Your task to perform on an android device: find snoozed emails in the gmail app Image 0: 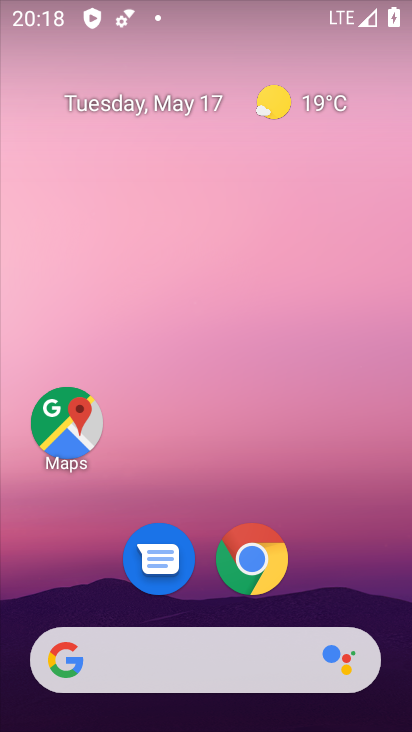
Step 0: drag from (210, 608) to (179, 192)
Your task to perform on an android device: find snoozed emails in the gmail app Image 1: 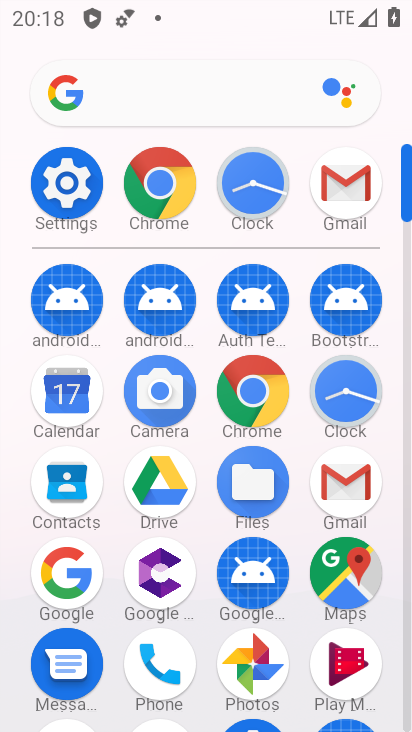
Step 1: click (344, 464)
Your task to perform on an android device: find snoozed emails in the gmail app Image 2: 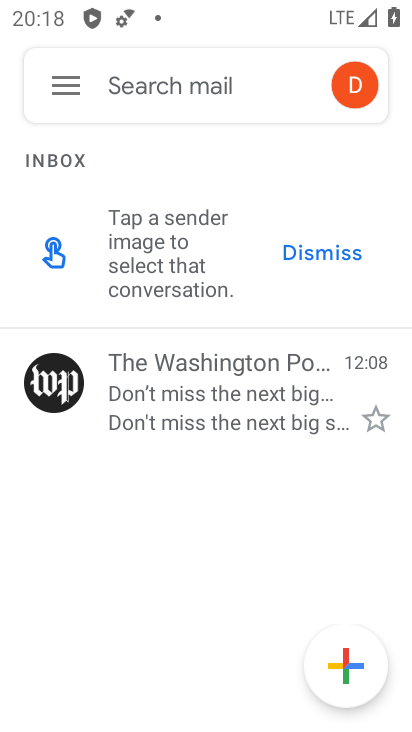
Step 2: click (67, 102)
Your task to perform on an android device: find snoozed emails in the gmail app Image 3: 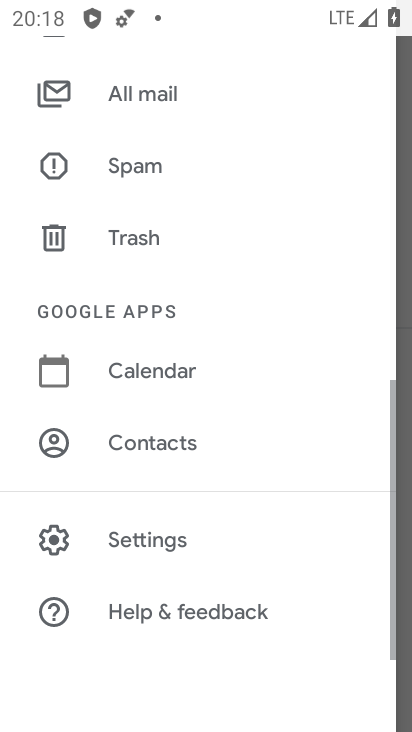
Step 3: drag from (239, 180) to (377, 727)
Your task to perform on an android device: find snoozed emails in the gmail app Image 4: 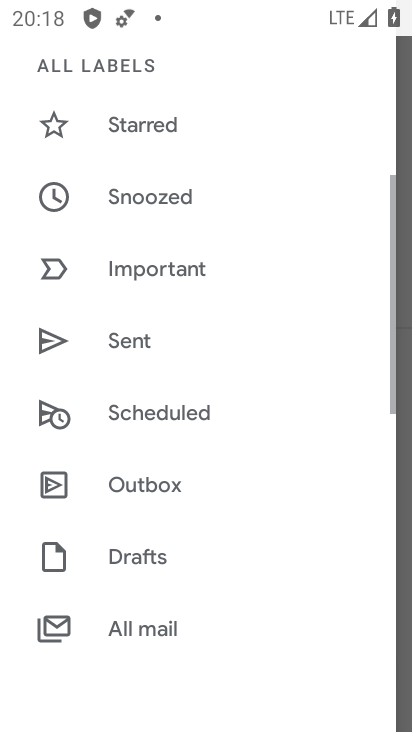
Step 4: click (173, 164)
Your task to perform on an android device: find snoozed emails in the gmail app Image 5: 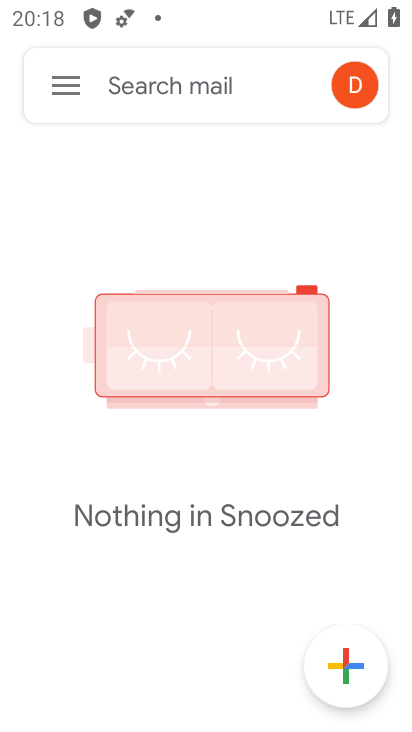
Step 5: task complete